Your task to perform on an android device: turn on data saver in the chrome app Image 0: 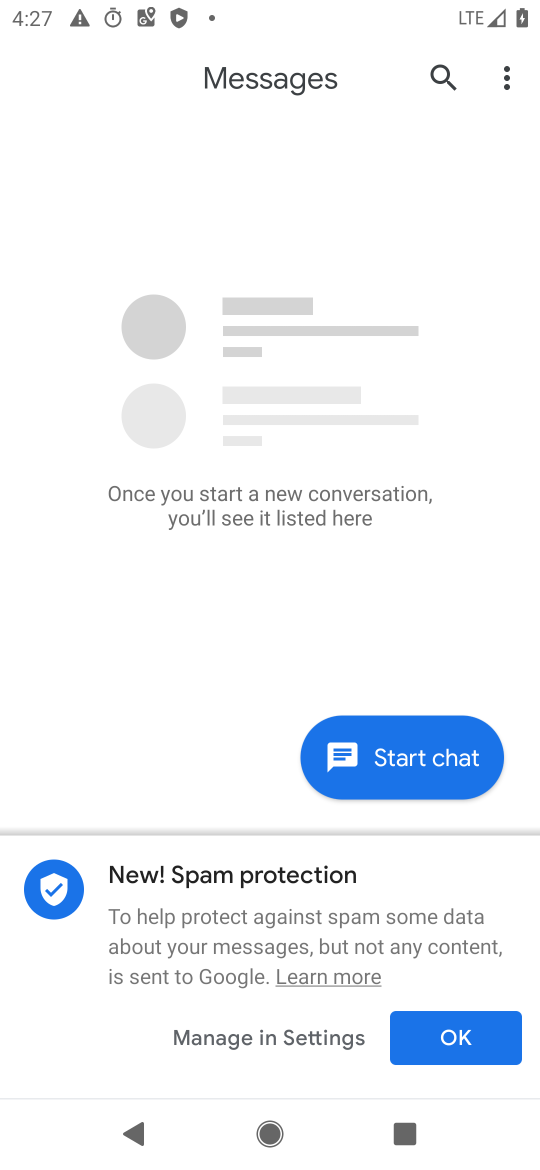
Step 0: press home button
Your task to perform on an android device: turn on data saver in the chrome app Image 1: 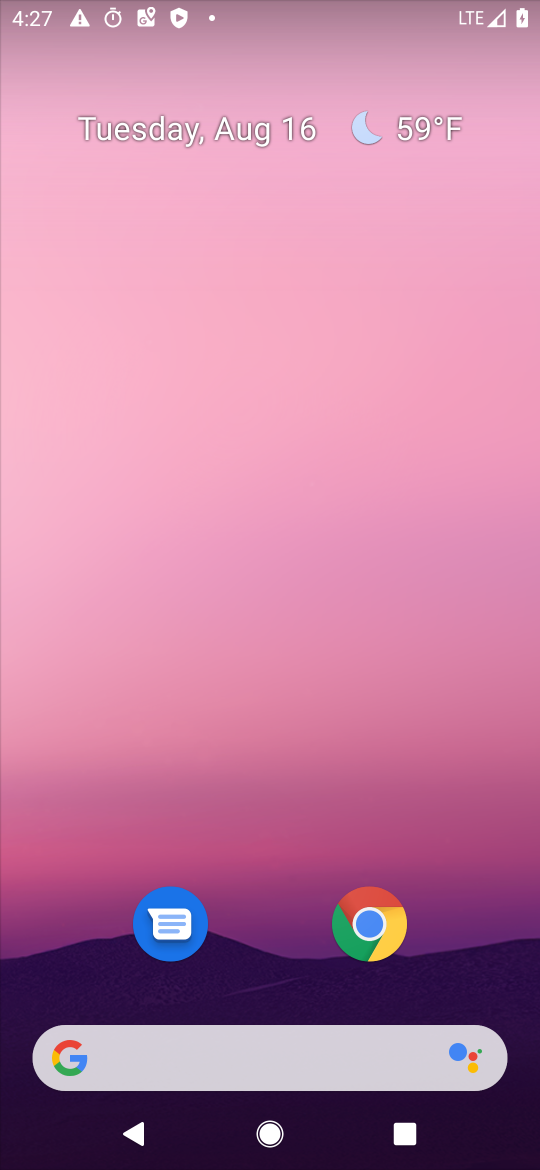
Step 1: click (341, 918)
Your task to perform on an android device: turn on data saver in the chrome app Image 2: 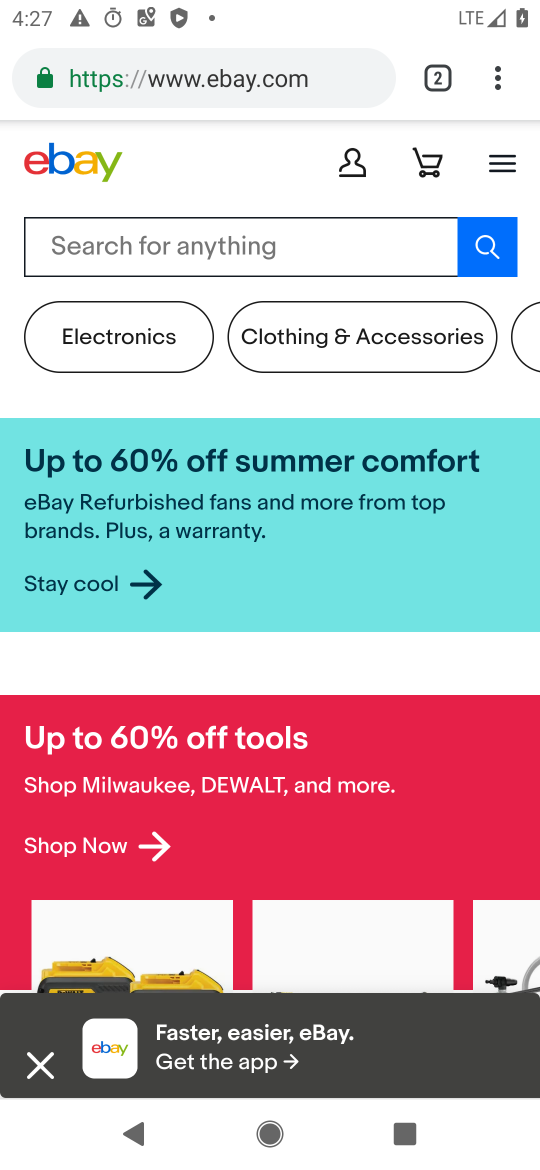
Step 2: click (493, 77)
Your task to perform on an android device: turn on data saver in the chrome app Image 3: 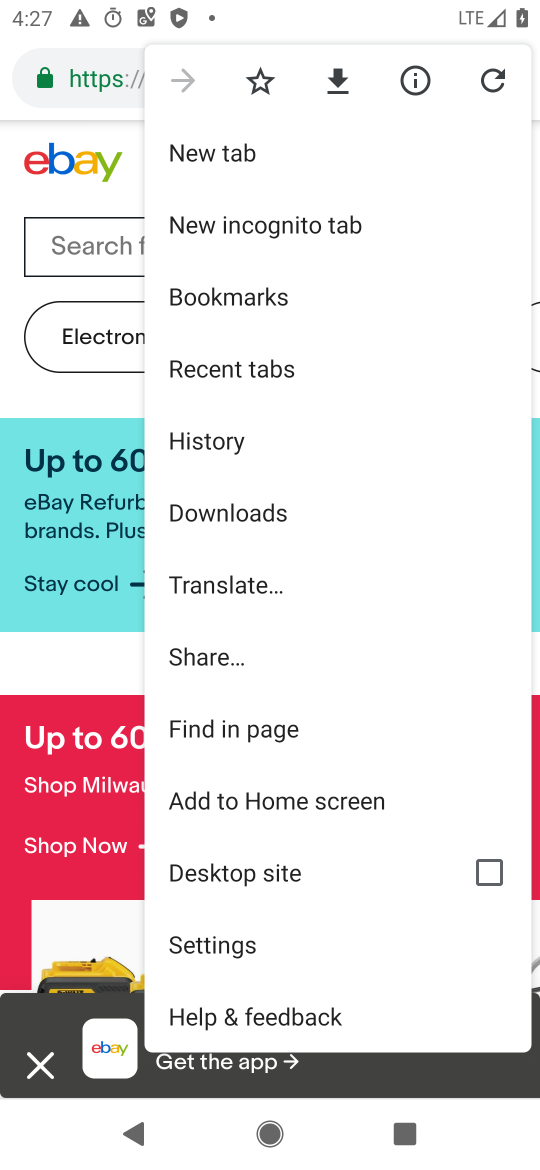
Step 3: click (337, 936)
Your task to perform on an android device: turn on data saver in the chrome app Image 4: 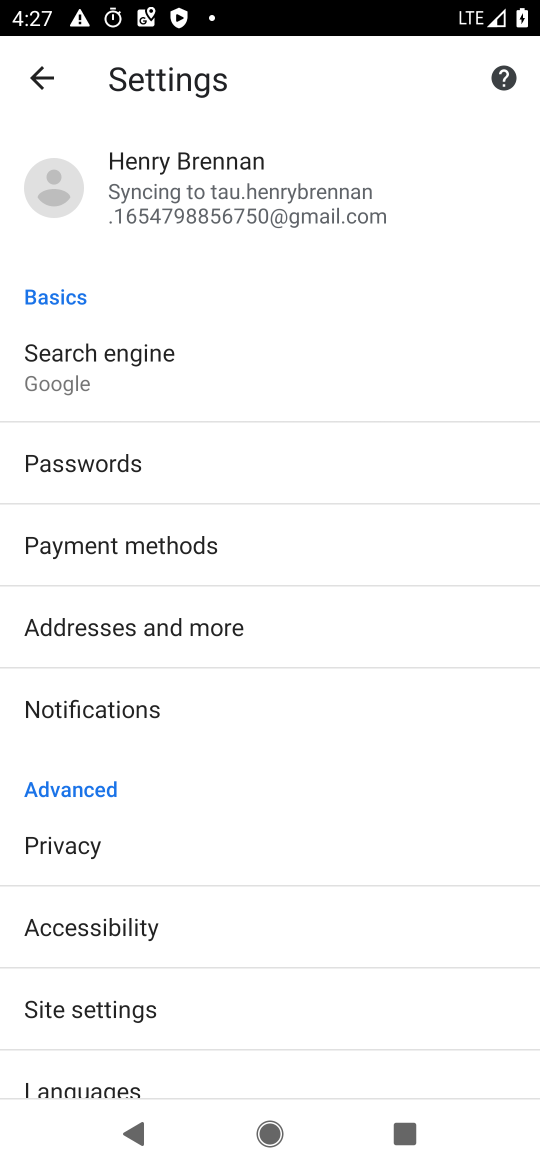
Step 4: drag from (337, 936) to (280, 316)
Your task to perform on an android device: turn on data saver in the chrome app Image 5: 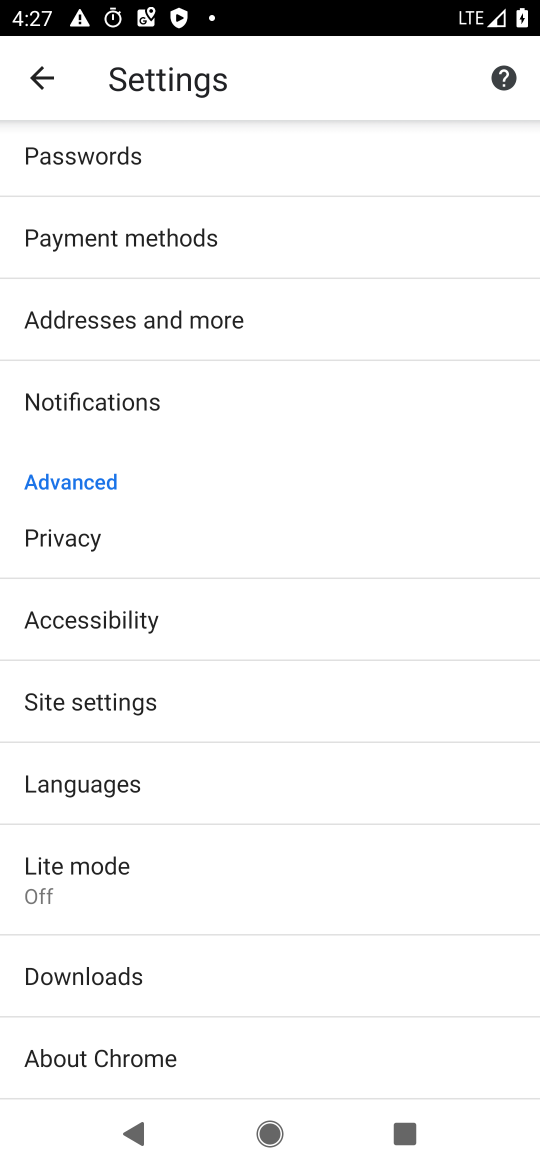
Step 5: click (208, 1002)
Your task to perform on an android device: turn on data saver in the chrome app Image 6: 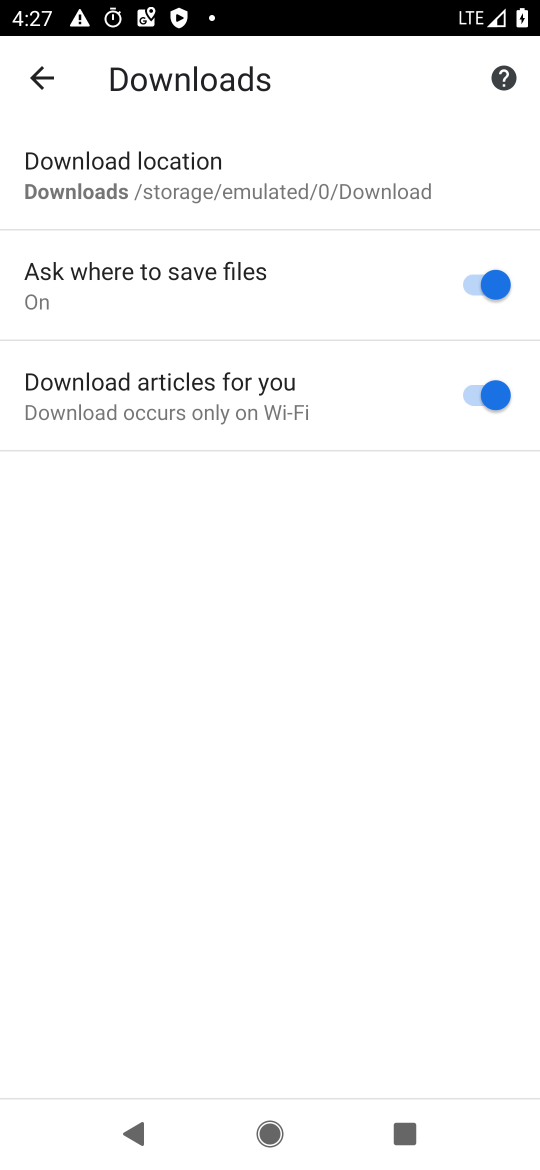
Step 6: click (164, 897)
Your task to perform on an android device: turn on data saver in the chrome app Image 7: 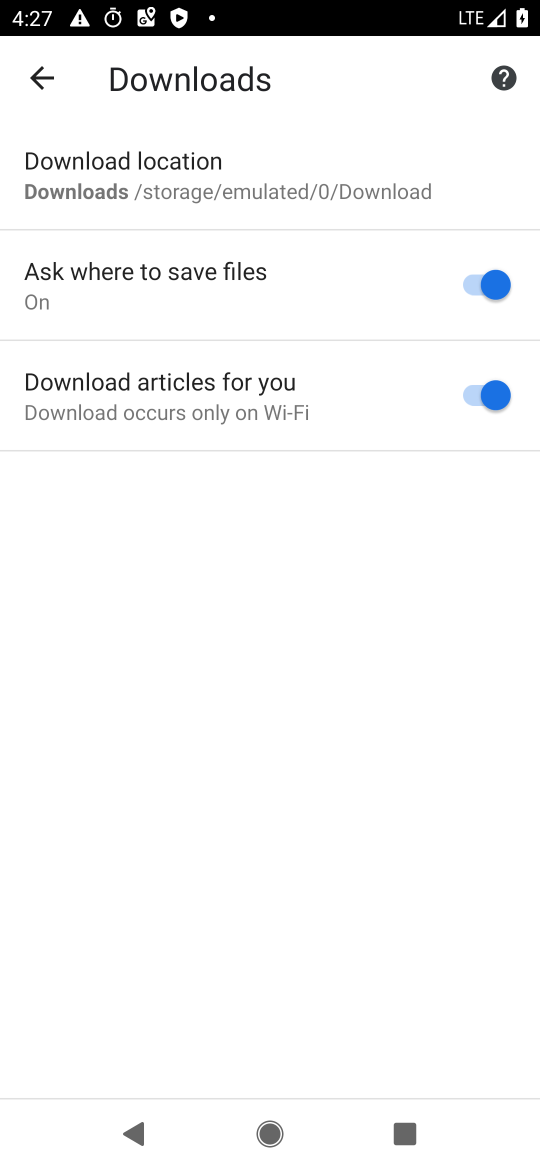
Step 7: click (50, 88)
Your task to perform on an android device: turn on data saver in the chrome app Image 8: 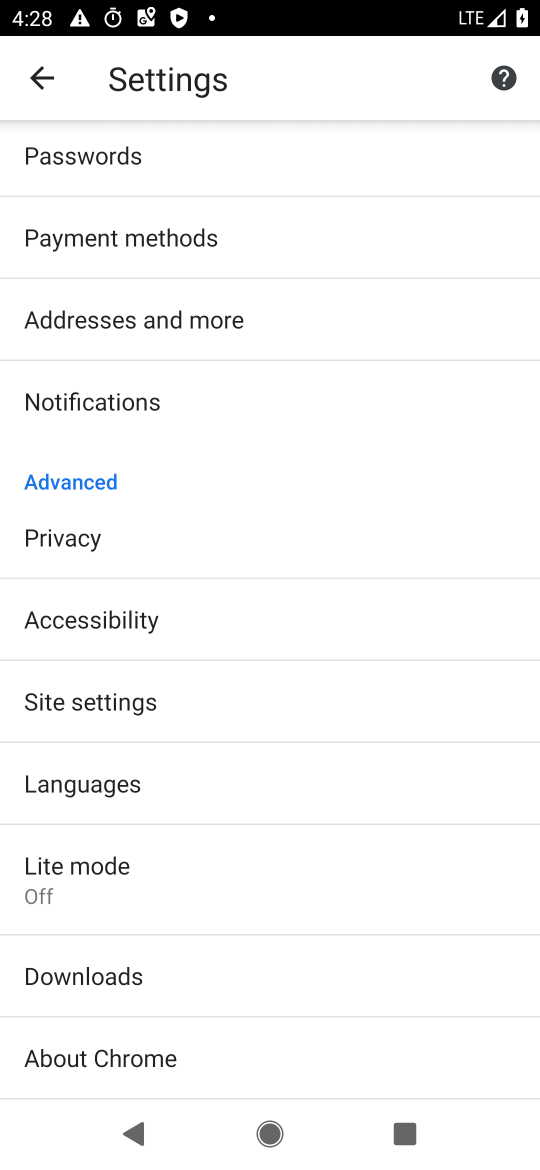
Step 8: click (80, 862)
Your task to perform on an android device: turn on data saver in the chrome app Image 9: 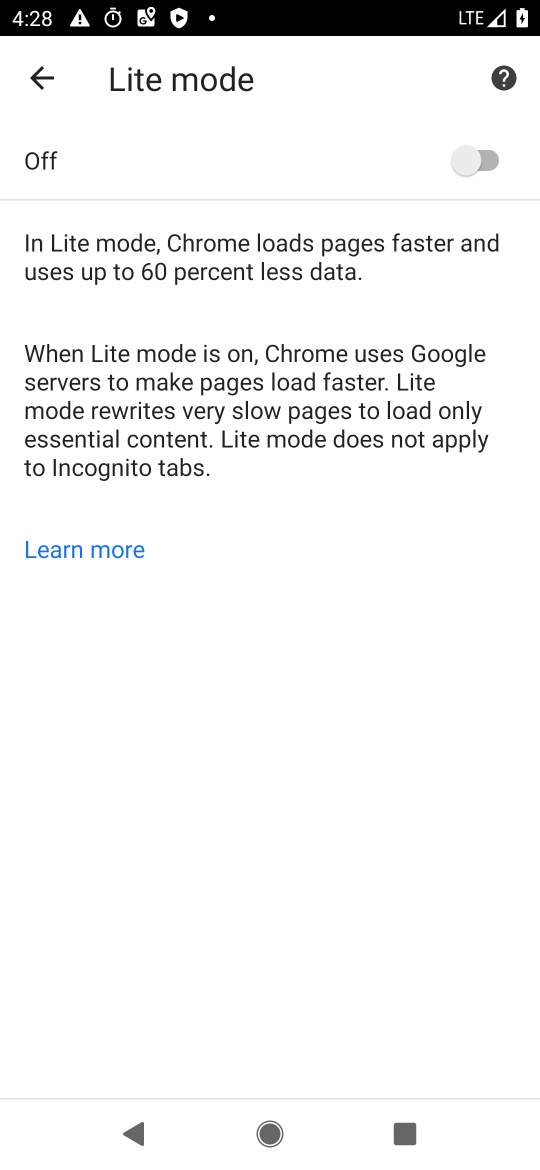
Step 9: click (482, 167)
Your task to perform on an android device: turn on data saver in the chrome app Image 10: 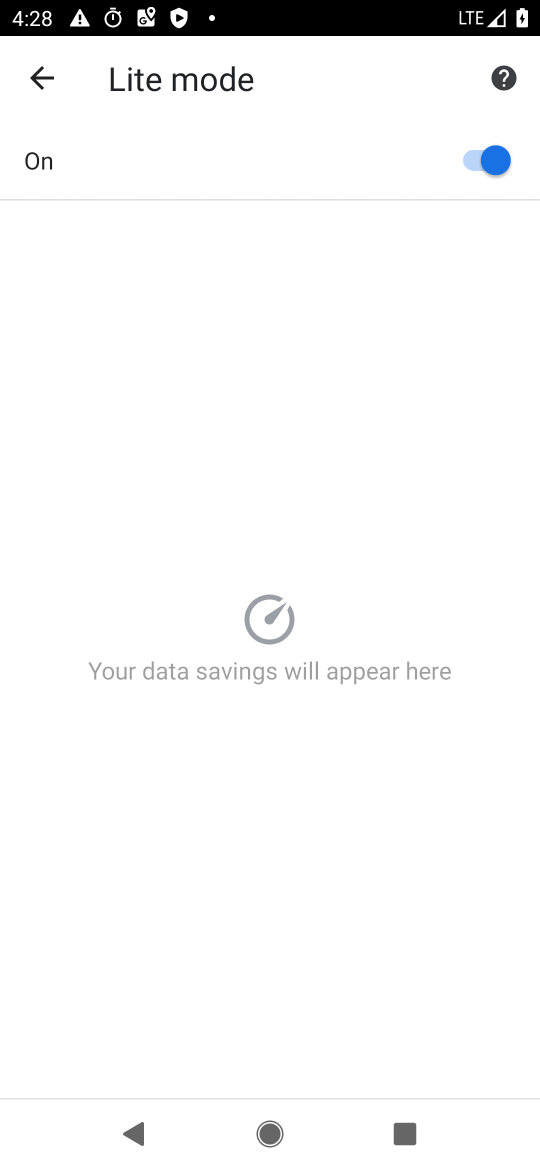
Step 10: task complete